Your task to perform on an android device: toggle pop-ups in chrome Image 0: 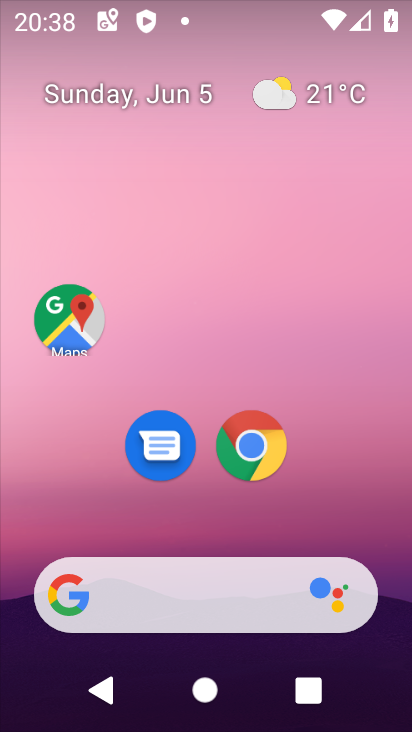
Step 0: click (247, 440)
Your task to perform on an android device: toggle pop-ups in chrome Image 1: 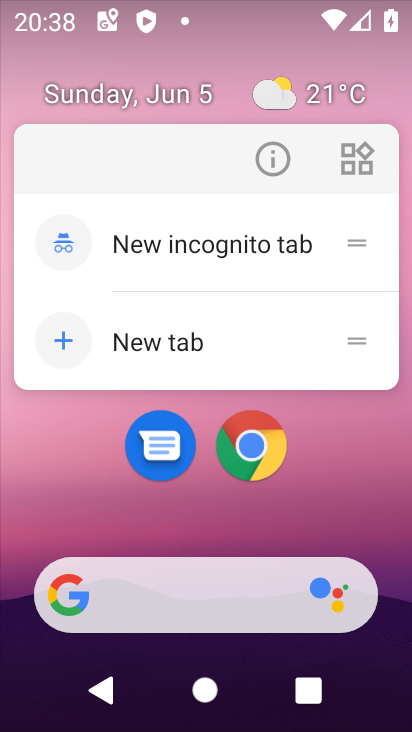
Step 1: click (245, 437)
Your task to perform on an android device: toggle pop-ups in chrome Image 2: 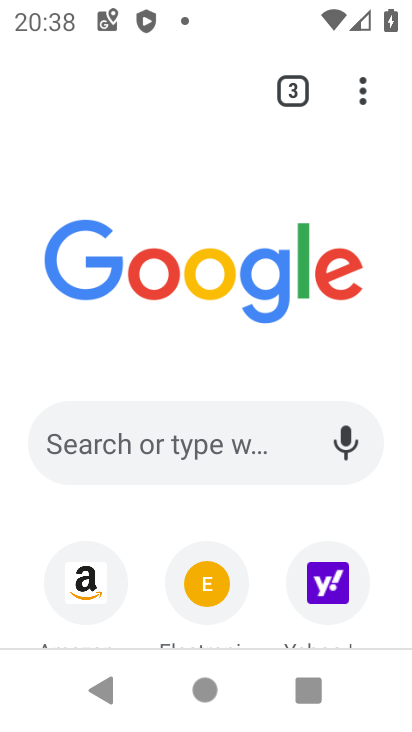
Step 2: drag from (364, 88) to (275, 477)
Your task to perform on an android device: toggle pop-ups in chrome Image 3: 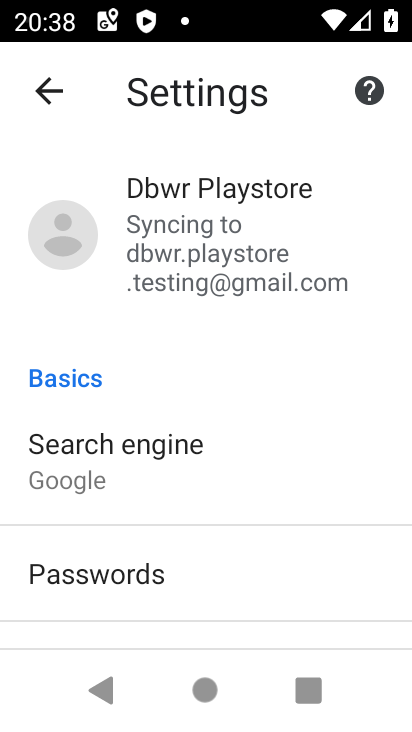
Step 3: drag from (329, 468) to (330, 148)
Your task to perform on an android device: toggle pop-ups in chrome Image 4: 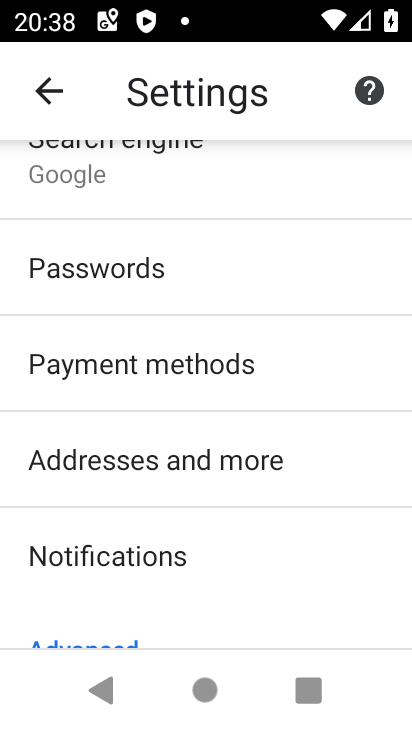
Step 4: drag from (321, 617) to (302, 242)
Your task to perform on an android device: toggle pop-ups in chrome Image 5: 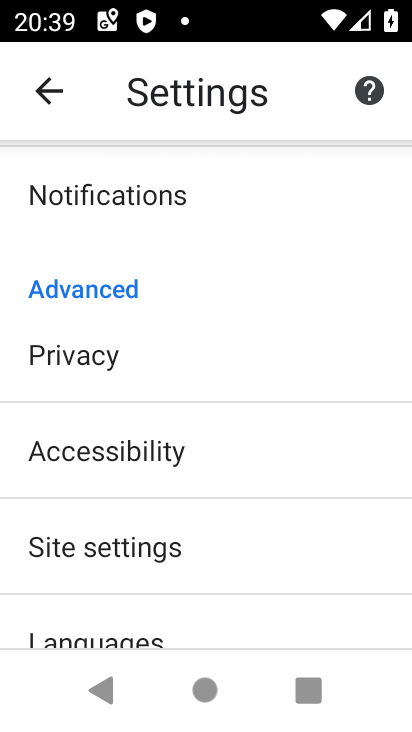
Step 5: click (176, 546)
Your task to perform on an android device: toggle pop-ups in chrome Image 6: 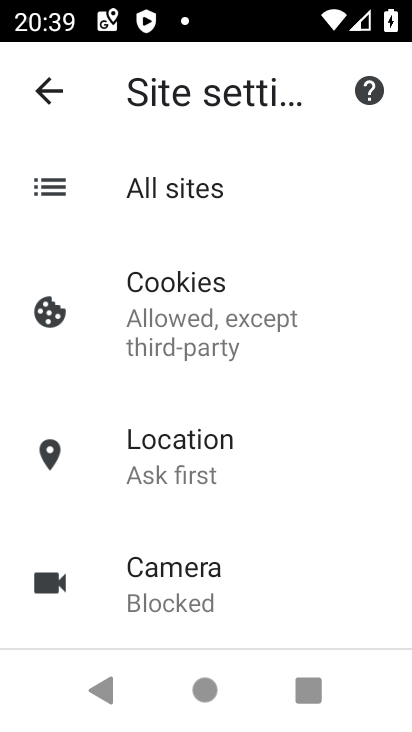
Step 6: drag from (38, 525) to (78, 236)
Your task to perform on an android device: toggle pop-ups in chrome Image 7: 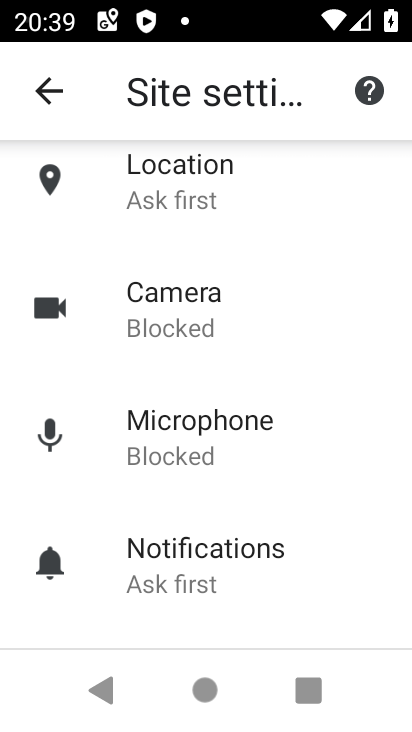
Step 7: drag from (40, 616) to (88, 289)
Your task to perform on an android device: toggle pop-ups in chrome Image 8: 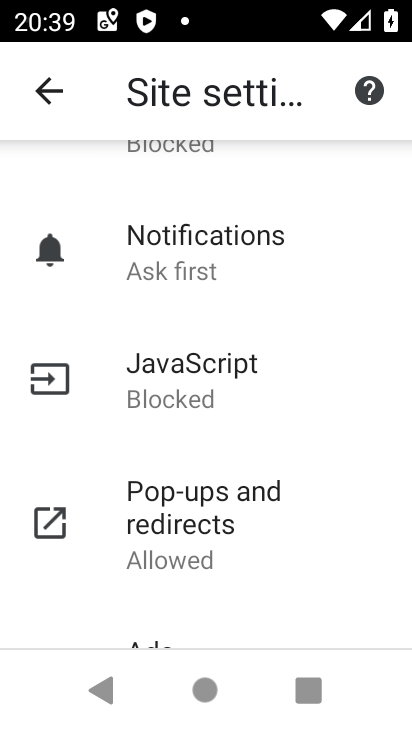
Step 8: click (183, 545)
Your task to perform on an android device: toggle pop-ups in chrome Image 9: 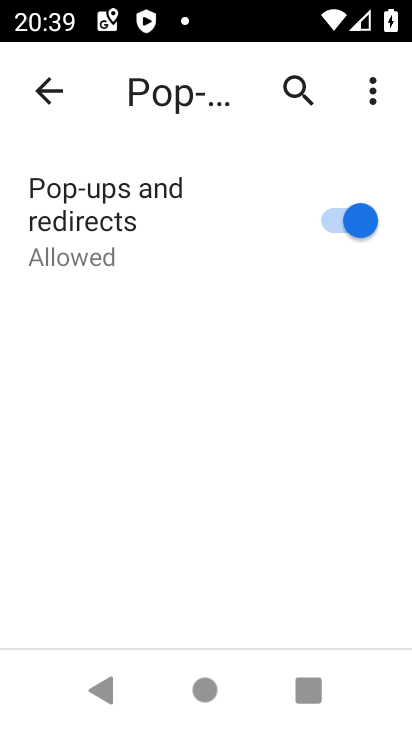
Step 9: click (338, 218)
Your task to perform on an android device: toggle pop-ups in chrome Image 10: 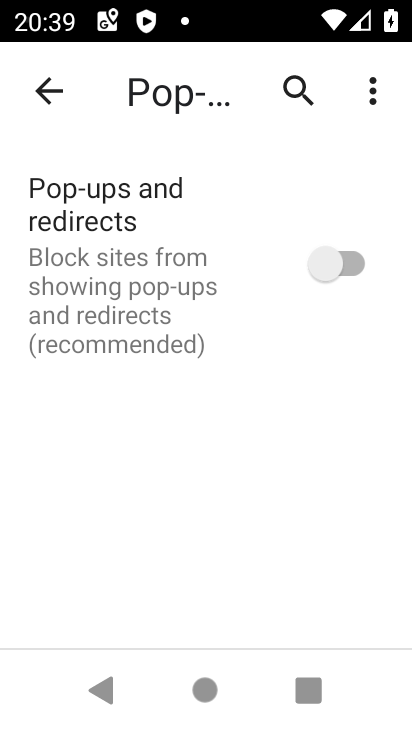
Step 10: task complete